Your task to perform on an android device: manage bookmarks in the chrome app Image 0: 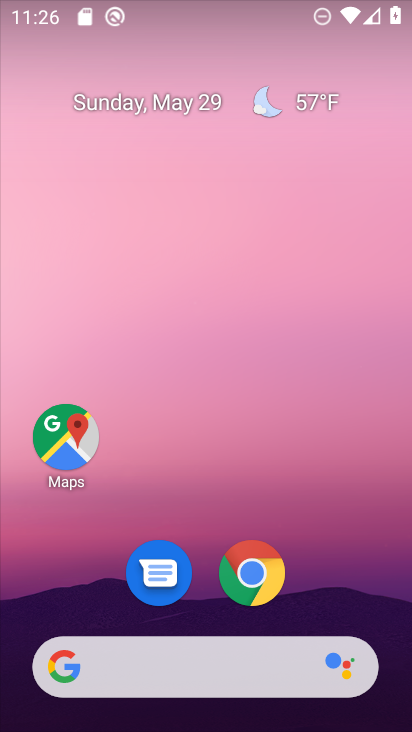
Step 0: drag from (301, 506) to (400, 24)
Your task to perform on an android device: manage bookmarks in the chrome app Image 1: 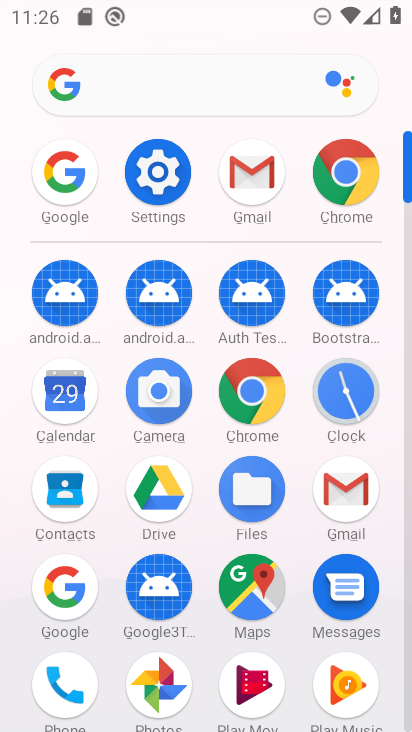
Step 1: click (282, 395)
Your task to perform on an android device: manage bookmarks in the chrome app Image 2: 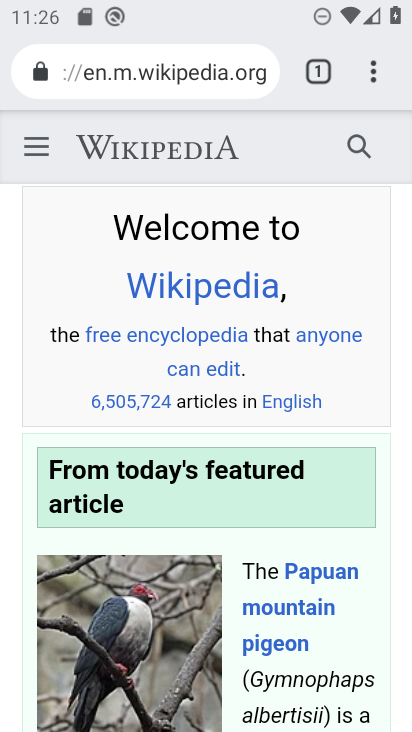
Step 2: drag from (375, 72) to (239, 259)
Your task to perform on an android device: manage bookmarks in the chrome app Image 3: 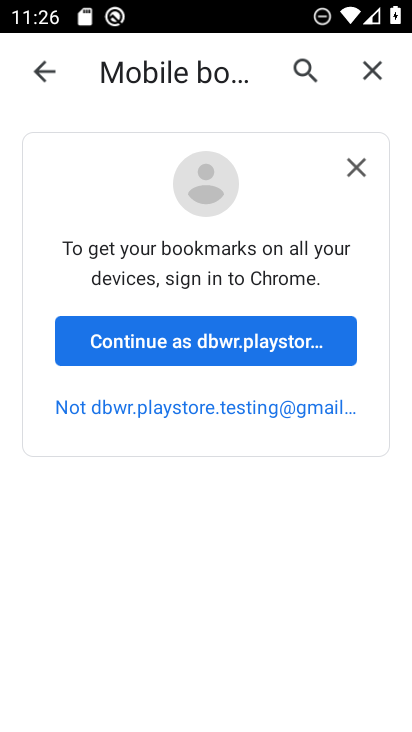
Step 3: click (364, 167)
Your task to perform on an android device: manage bookmarks in the chrome app Image 4: 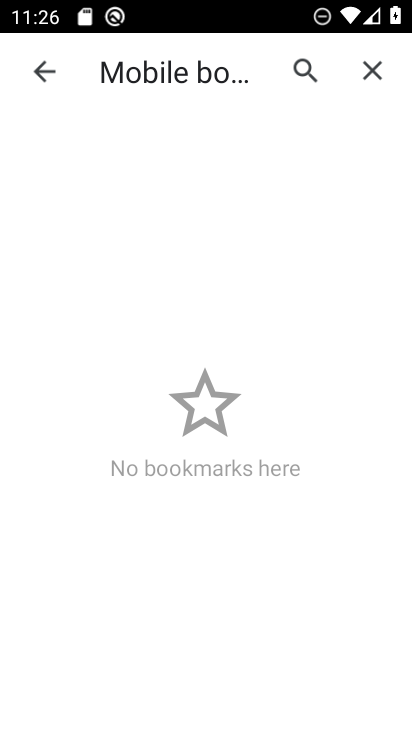
Step 4: task complete